Your task to perform on an android device: toggle pop-ups in chrome Image 0: 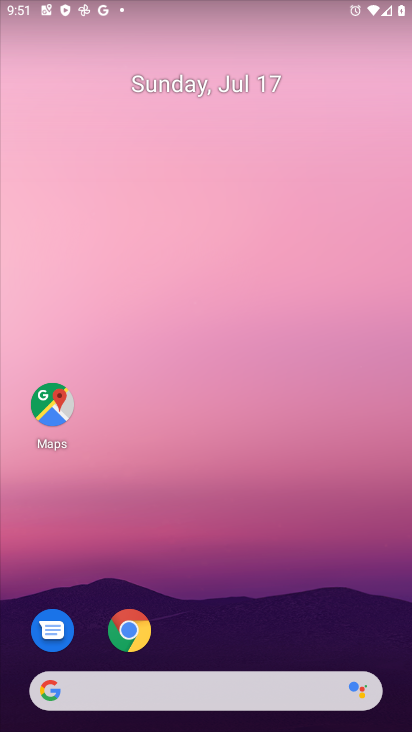
Step 0: press home button
Your task to perform on an android device: toggle pop-ups in chrome Image 1: 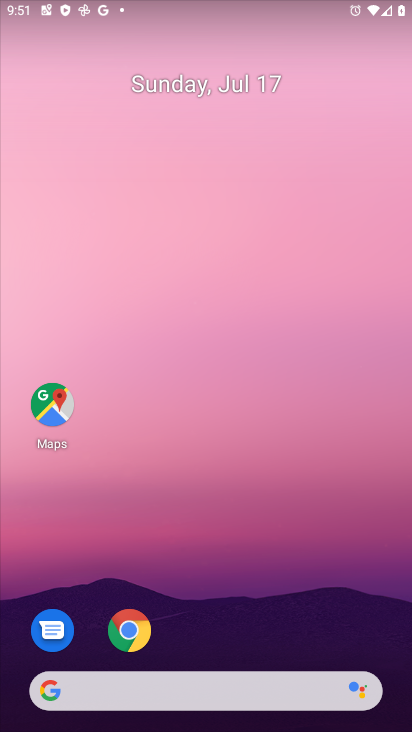
Step 1: click (121, 650)
Your task to perform on an android device: toggle pop-ups in chrome Image 2: 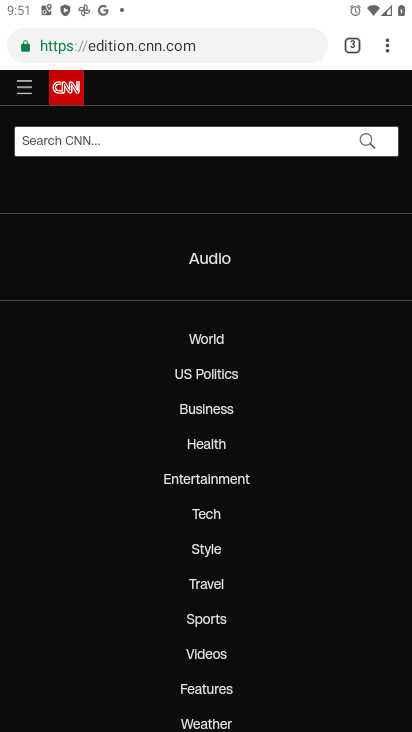
Step 2: click (172, 47)
Your task to perform on an android device: toggle pop-ups in chrome Image 3: 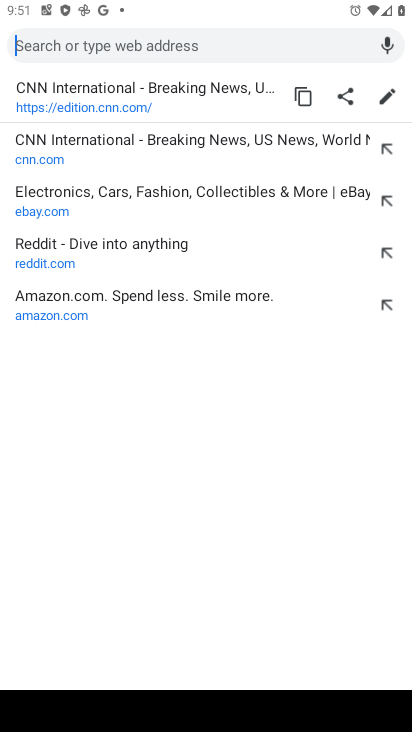
Step 3: press back button
Your task to perform on an android device: toggle pop-ups in chrome Image 4: 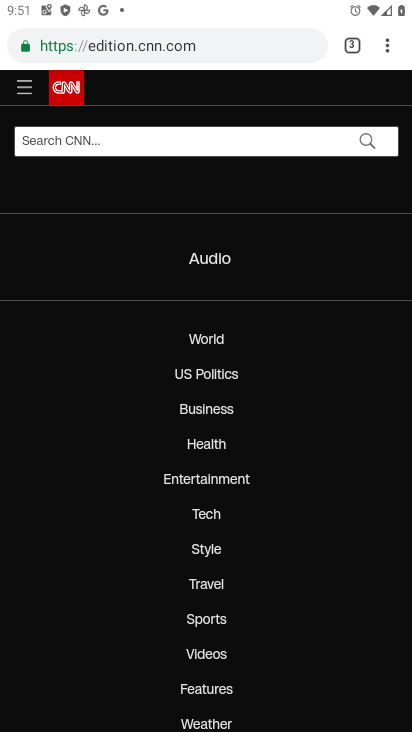
Step 4: click (385, 45)
Your task to perform on an android device: toggle pop-ups in chrome Image 5: 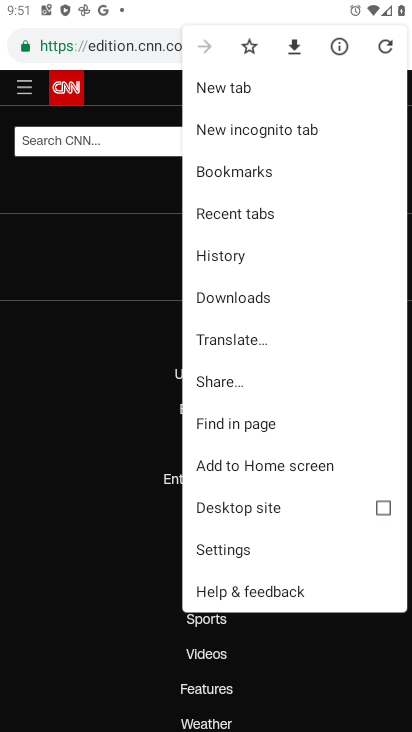
Step 5: click (230, 541)
Your task to perform on an android device: toggle pop-ups in chrome Image 6: 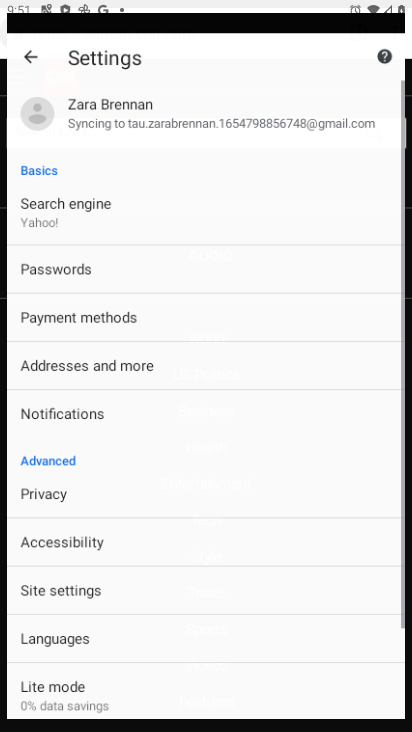
Step 6: click (218, 546)
Your task to perform on an android device: toggle pop-ups in chrome Image 7: 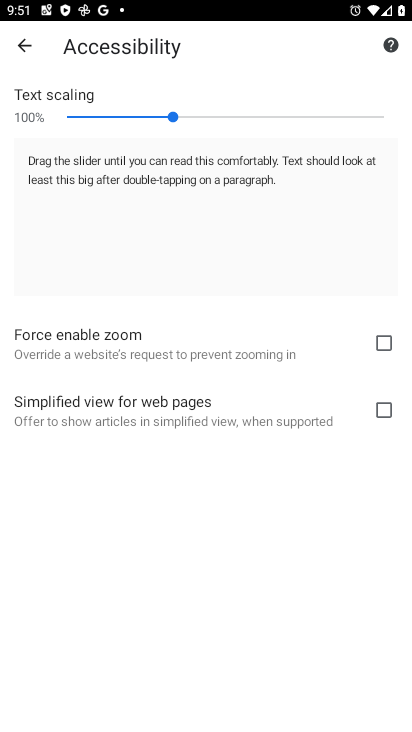
Step 7: click (27, 50)
Your task to perform on an android device: toggle pop-ups in chrome Image 8: 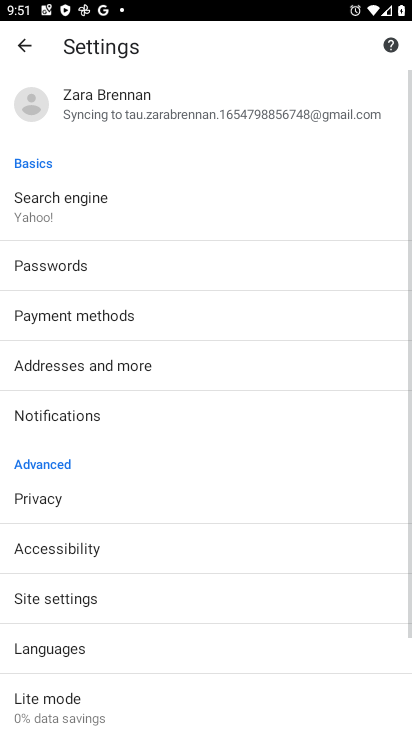
Step 8: click (27, 50)
Your task to perform on an android device: toggle pop-ups in chrome Image 9: 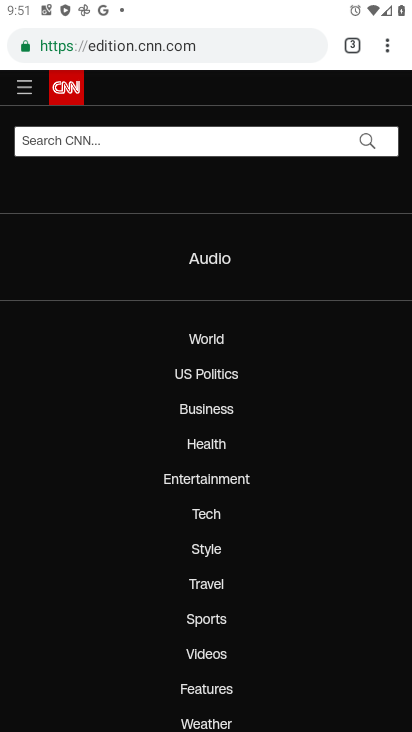
Step 9: click (388, 42)
Your task to perform on an android device: toggle pop-ups in chrome Image 10: 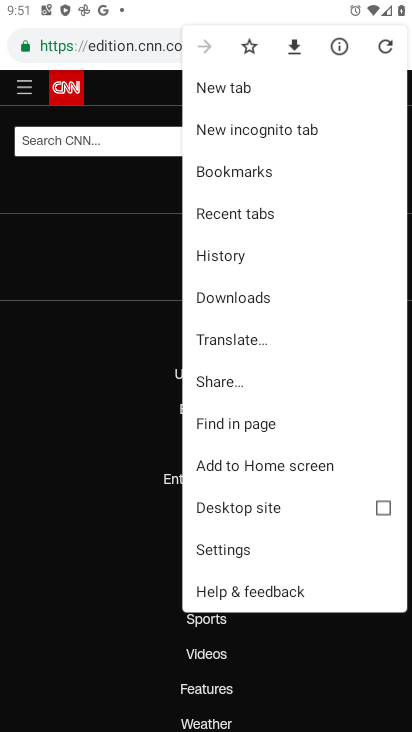
Step 10: click (220, 551)
Your task to perform on an android device: toggle pop-ups in chrome Image 11: 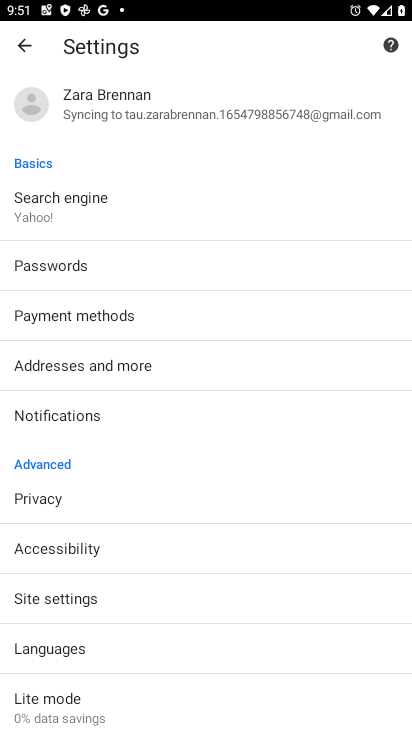
Step 11: click (49, 592)
Your task to perform on an android device: toggle pop-ups in chrome Image 12: 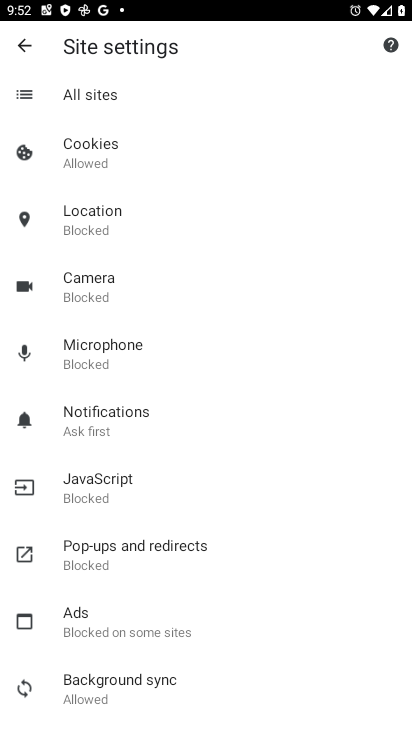
Step 12: click (110, 551)
Your task to perform on an android device: toggle pop-ups in chrome Image 13: 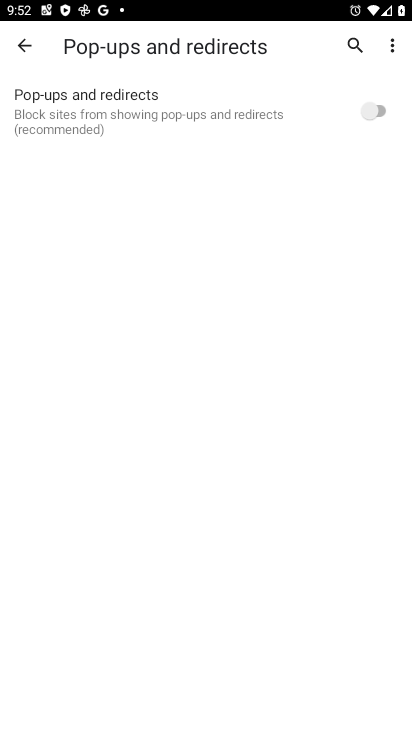
Step 13: click (377, 110)
Your task to perform on an android device: toggle pop-ups in chrome Image 14: 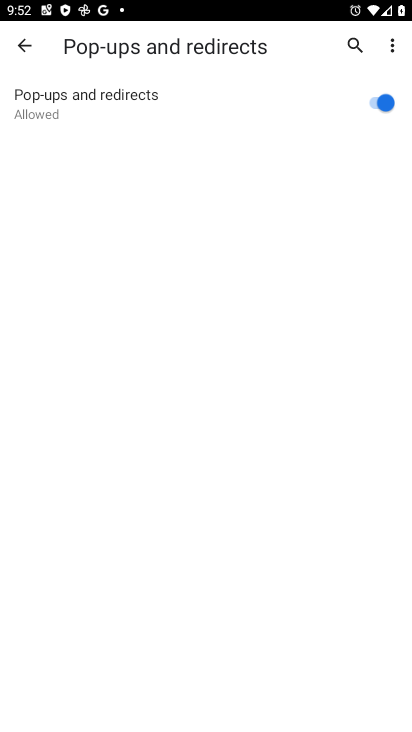
Step 14: task complete